Your task to perform on an android device: Open Yahoo.com Image 0: 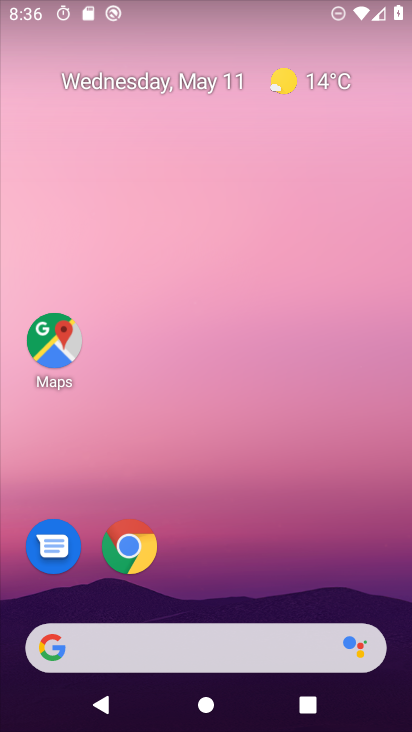
Step 0: click (131, 547)
Your task to perform on an android device: Open Yahoo.com Image 1: 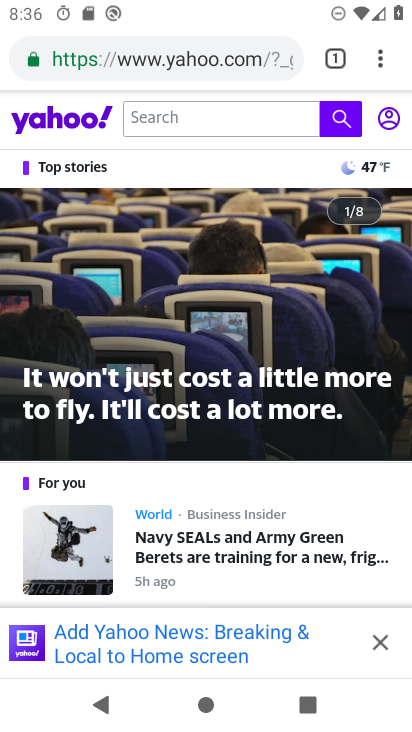
Step 1: task complete